Your task to perform on an android device: turn on sleep mode Image 0: 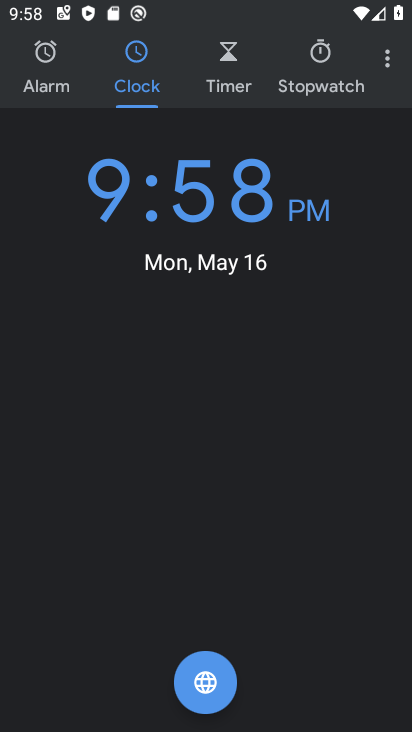
Step 0: press home button
Your task to perform on an android device: turn on sleep mode Image 1: 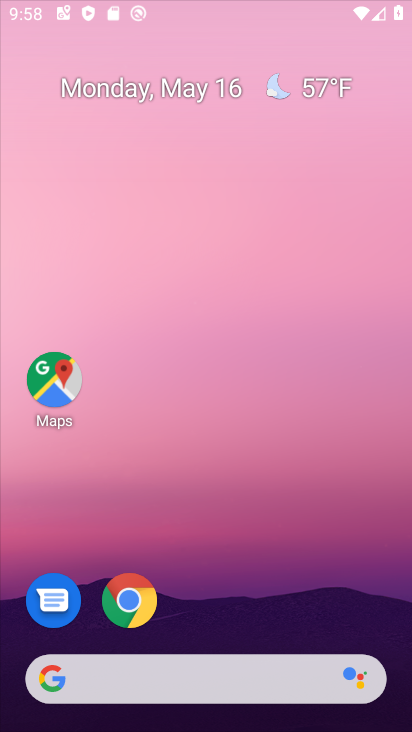
Step 1: drag from (291, 559) to (228, 104)
Your task to perform on an android device: turn on sleep mode Image 2: 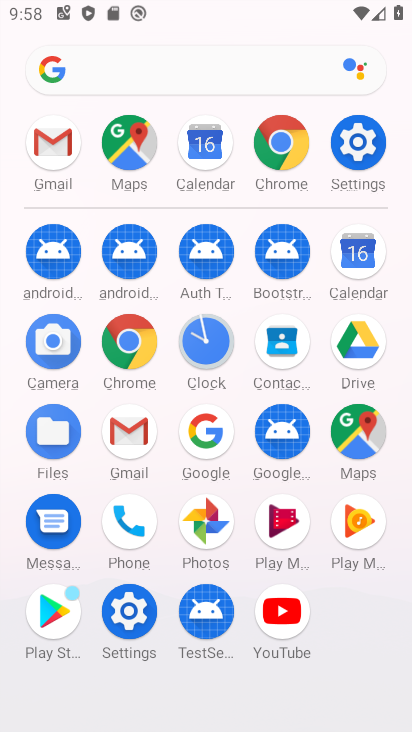
Step 2: click (371, 140)
Your task to perform on an android device: turn on sleep mode Image 3: 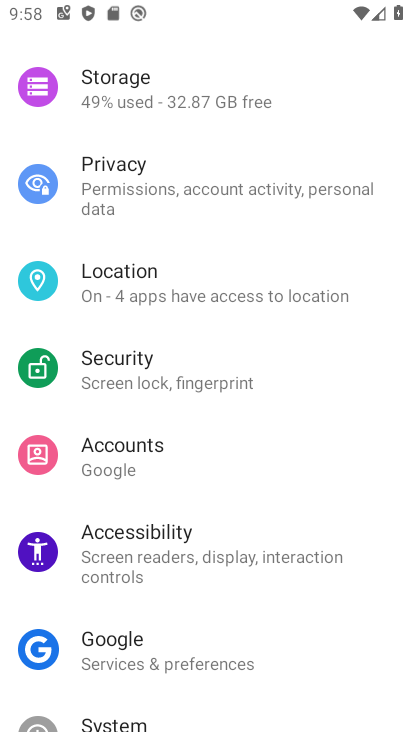
Step 3: drag from (190, 190) to (227, 462)
Your task to perform on an android device: turn on sleep mode Image 4: 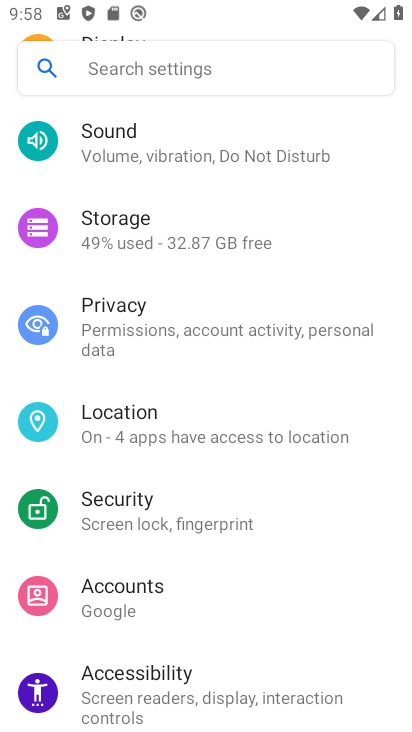
Step 4: click (205, 79)
Your task to perform on an android device: turn on sleep mode Image 5: 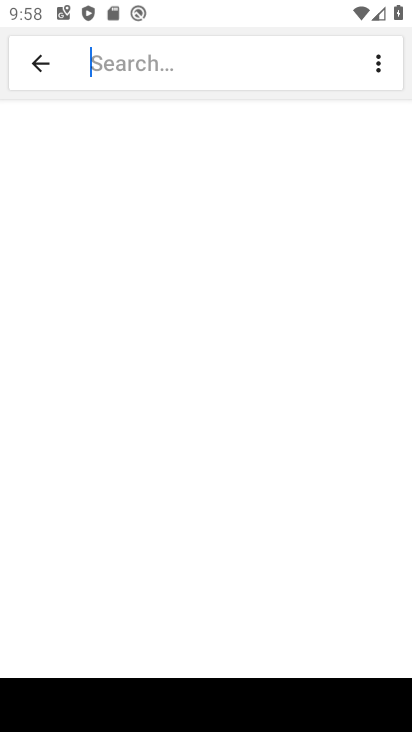
Step 5: type "sleep mode"
Your task to perform on an android device: turn on sleep mode Image 6: 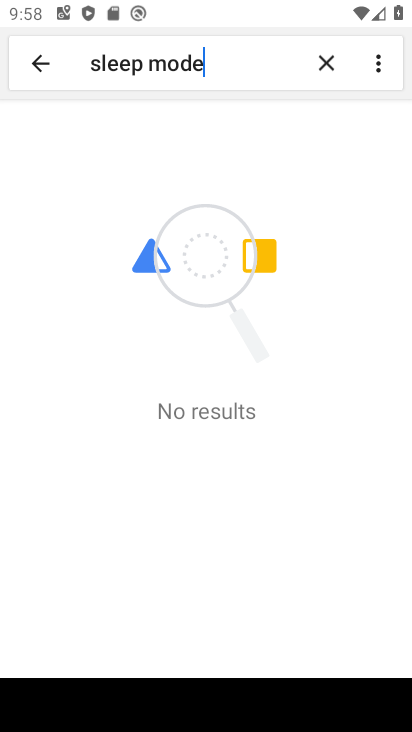
Step 6: task complete